Your task to perform on an android device: find snoozed emails in the gmail app Image 0: 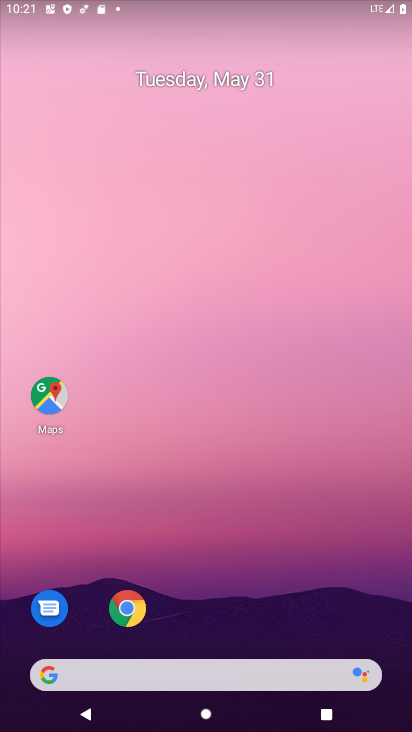
Step 0: drag from (195, 647) to (252, 13)
Your task to perform on an android device: find snoozed emails in the gmail app Image 1: 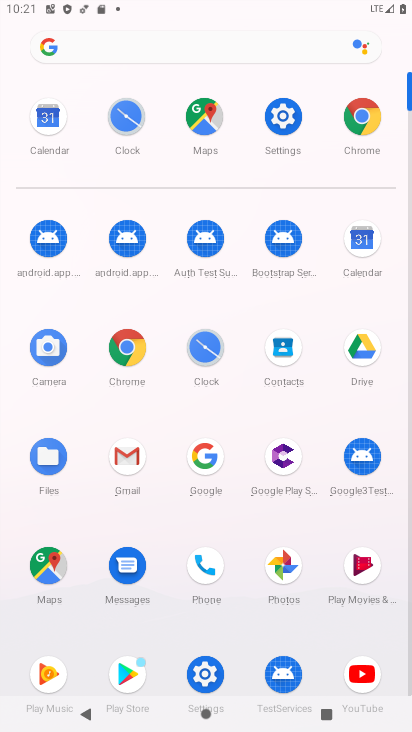
Step 1: click (130, 457)
Your task to perform on an android device: find snoozed emails in the gmail app Image 2: 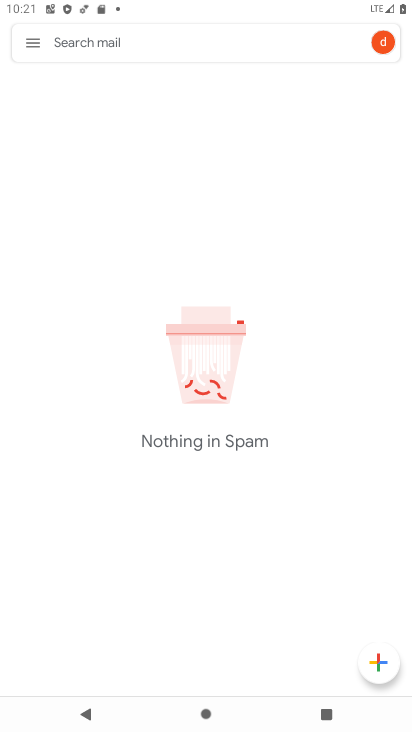
Step 2: click (33, 43)
Your task to perform on an android device: find snoozed emails in the gmail app Image 3: 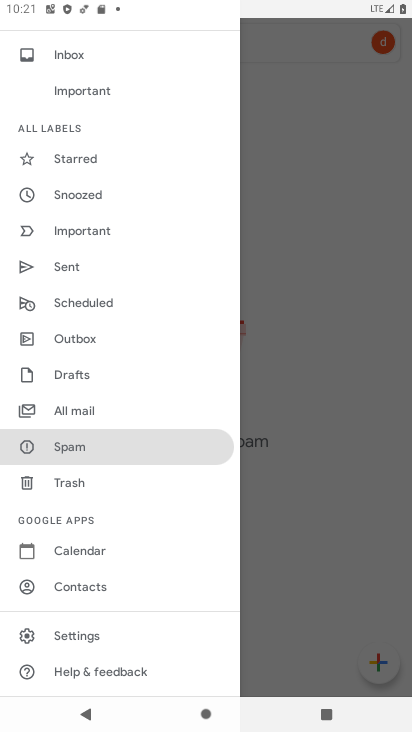
Step 3: click (92, 196)
Your task to perform on an android device: find snoozed emails in the gmail app Image 4: 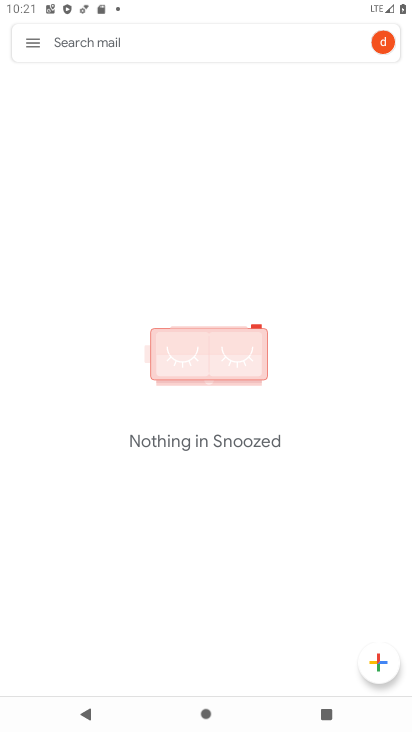
Step 4: task complete